Your task to perform on an android device: Open my contact list Image 0: 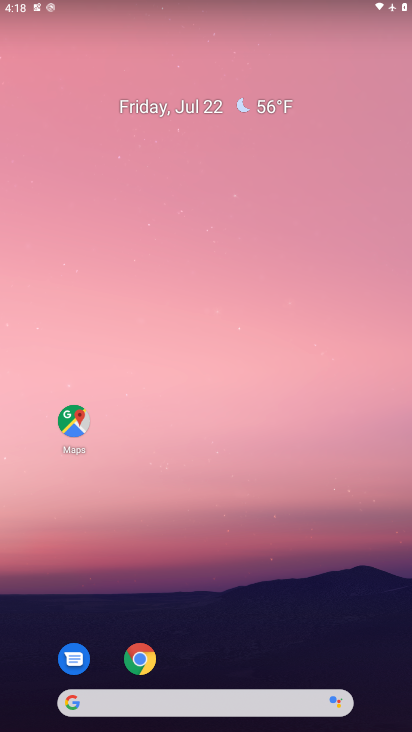
Step 0: drag from (200, 579) to (200, 313)
Your task to perform on an android device: Open my contact list Image 1: 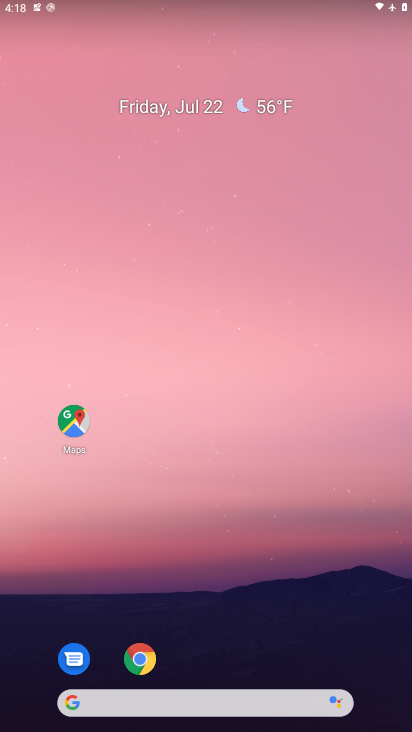
Step 1: drag from (209, 684) to (243, 204)
Your task to perform on an android device: Open my contact list Image 2: 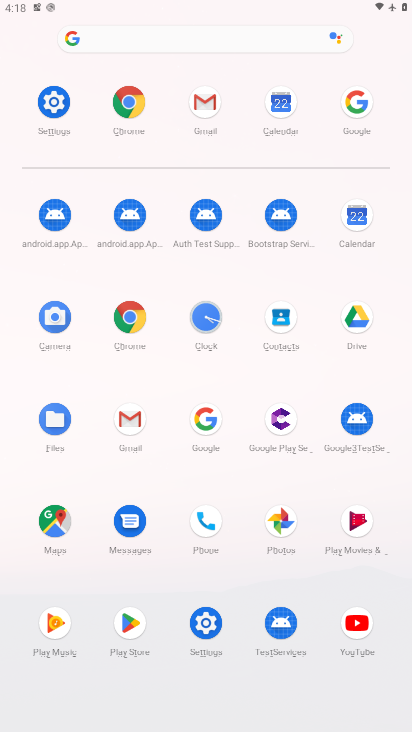
Step 2: click (278, 317)
Your task to perform on an android device: Open my contact list Image 3: 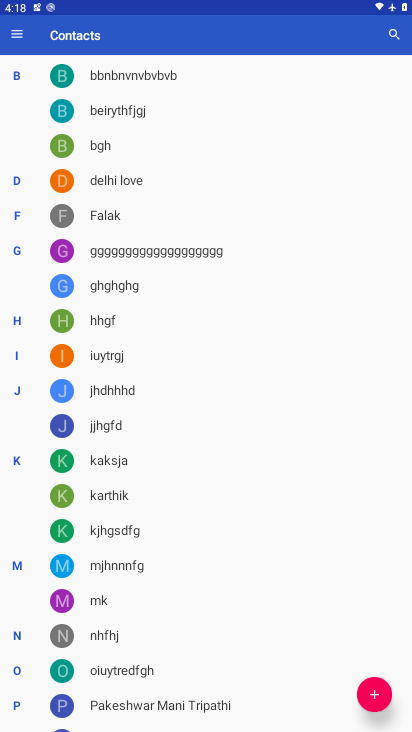
Step 3: task complete